Your task to perform on an android device: toggle location history Image 0: 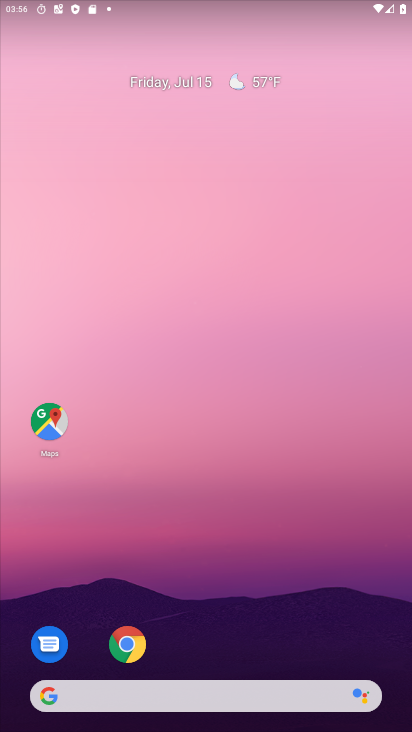
Step 0: drag from (267, 638) to (209, 214)
Your task to perform on an android device: toggle location history Image 1: 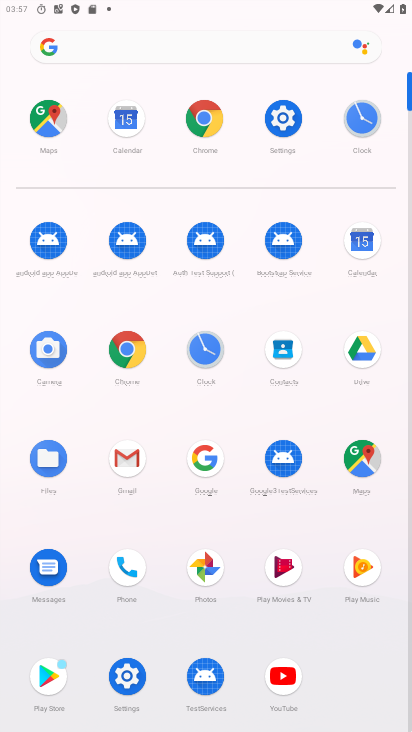
Step 1: click (47, 126)
Your task to perform on an android device: toggle location history Image 2: 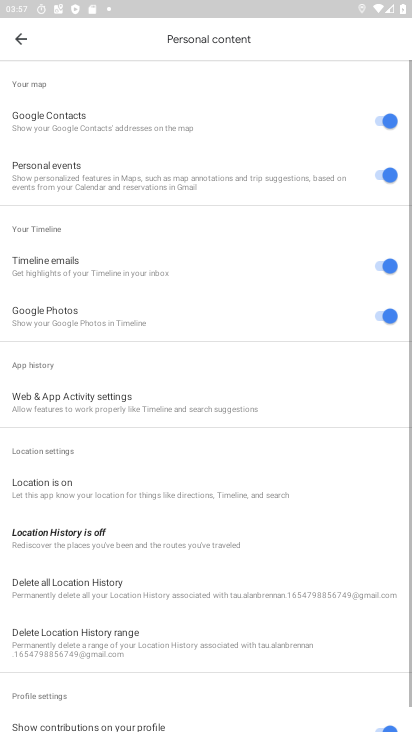
Step 2: click (145, 532)
Your task to perform on an android device: toggle location history Image 3: 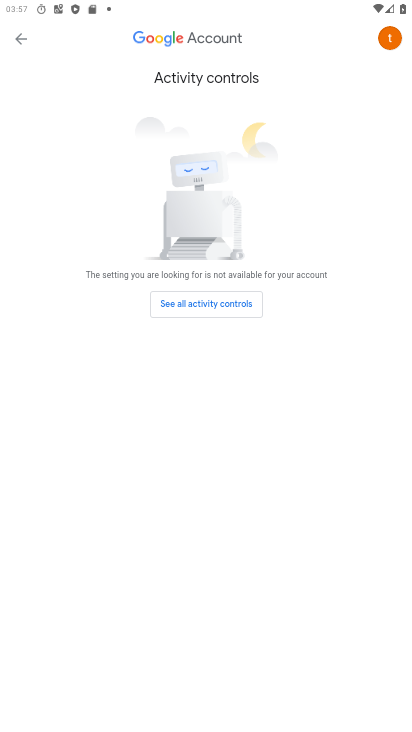
Step 3: click (202, 308)
Your task to perform on an android device: toggle location history Image 4: 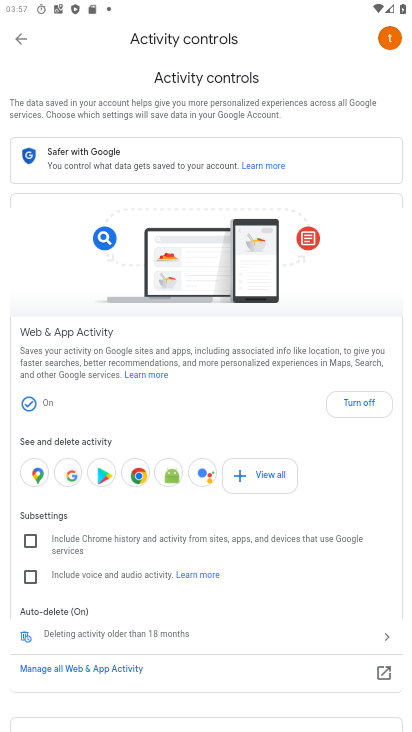
Step 4: click (362, 398)
Your task to perform on an android device: toggle location history Image 5: 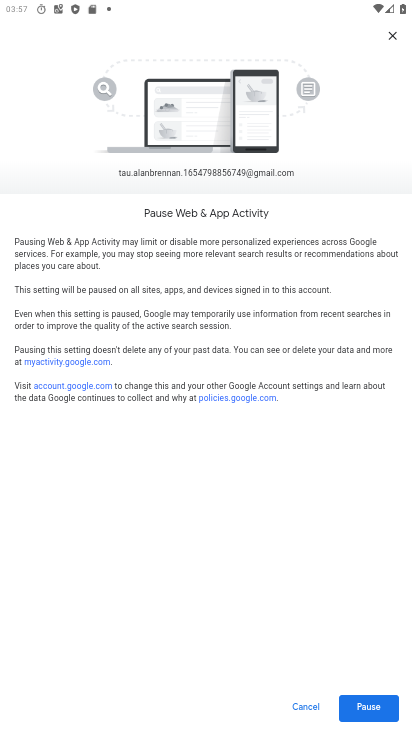
Step 5: click (366, 713)
Your task to perform on an android device: toggle location history Image 6: 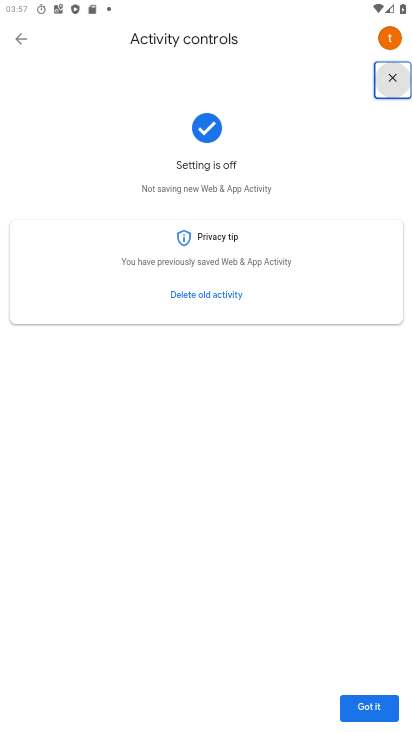
Step 6: click (362, 708)
Your task to perform on an android device: toggle location history Image 7: 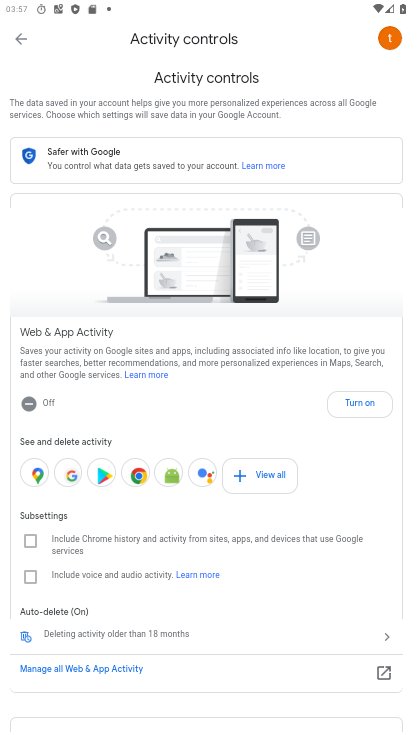
Step 7: task complete